Your task to perform on an android device: Open Google Maps and go to "Timeline" Image 0: 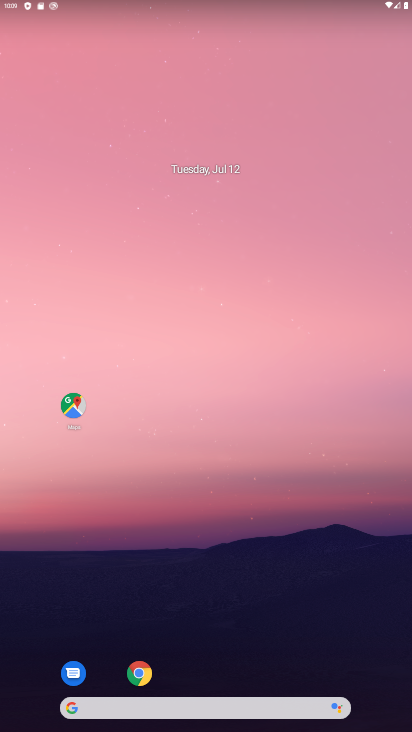
Step 0: drag from (197, 585) to (247, 132)
Your task to perform on an android device: Open Google Maps and go to "Timeline" Image 1: 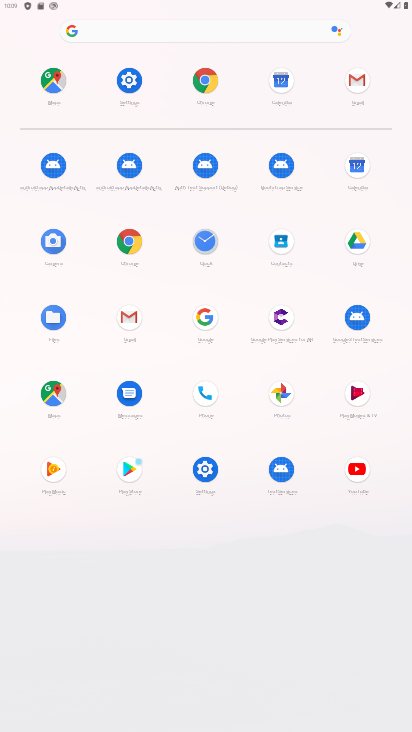
Step 1: click (54, 75)
Your task to perform on an android device: Open Google Maps and go to "Timeline" Image 2: 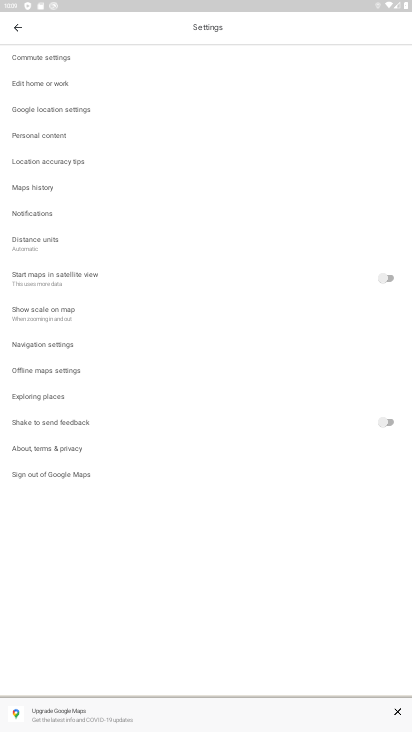
Step 2: click (14, 28)
Your task to perform on an android device: Open Google Maps and go to "Timeline" Image 3: 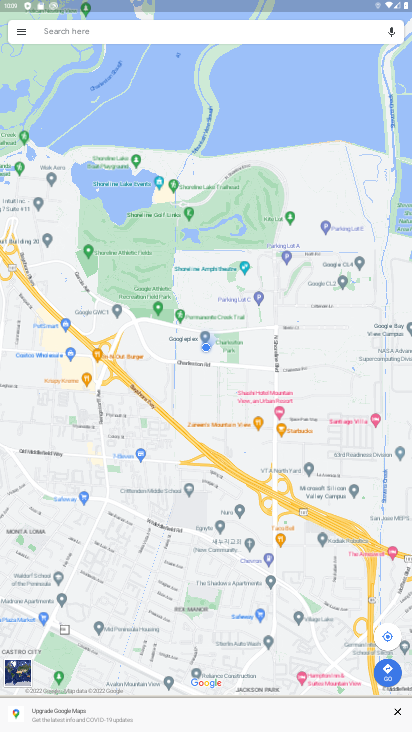
Step 3: click (15, 30)
Your task to perform on an android device: Open Google Maps and go to "Timeline" Image 4: 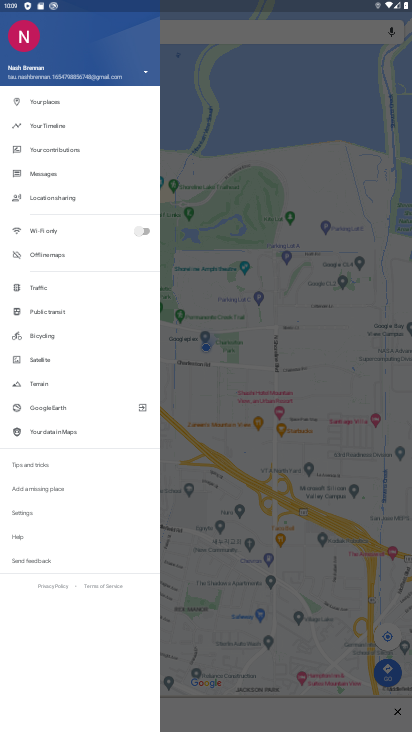
Step 4: click (37, 123)
Your task to perform on an android device: Open Google Maps and go to "Timeline" Image 5: 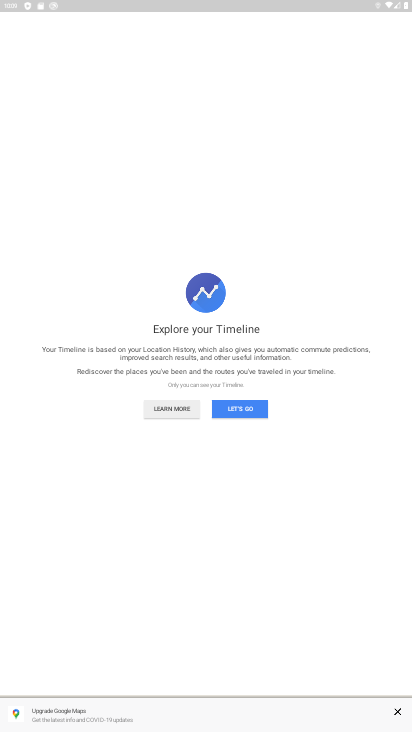
Step 5: click (227, 403)
Your task to perform on an android device: Open Google Maps and go to "Timeline" Image 6: 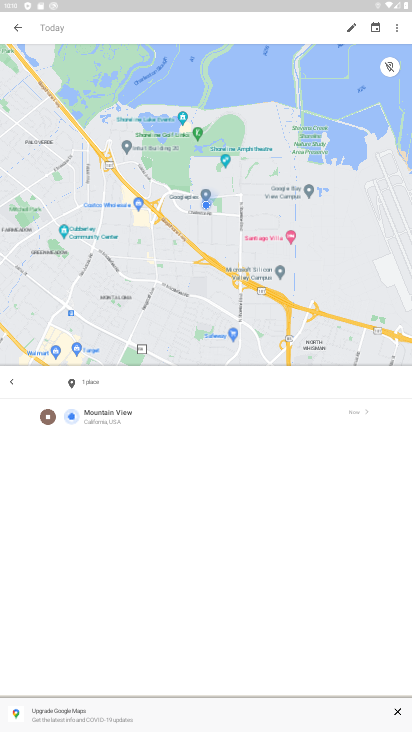
Step 6: task complete